Your task to perform on an android device: add a contact Image 0: 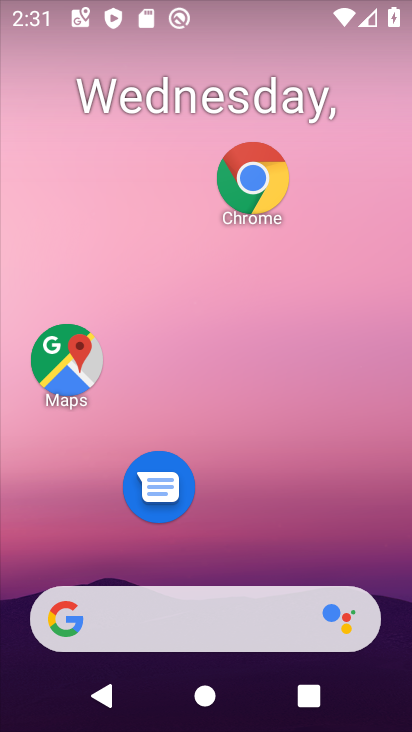
Step 0: drag from (263, 535) to (251, 46)
Your task to perform on an android device: add a contact Image 1: 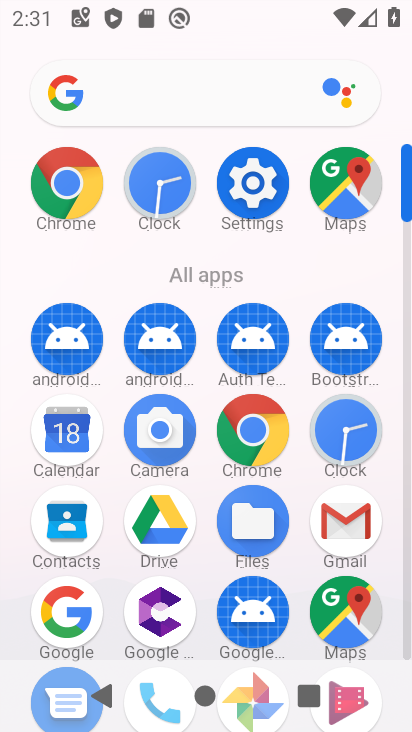
Step 1: click (59, 497)
Your task to perform on an android device: add a contact Image 2: 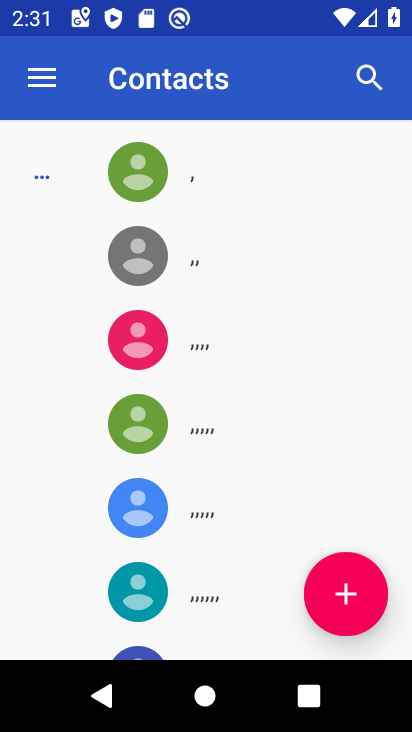
Step 2: click (335, 590)
Your task to perform on an android device: add a contact Image 3: 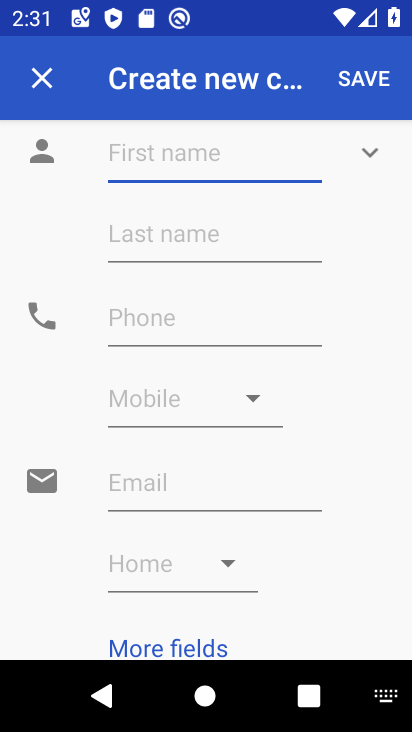
Step 3: type "qazxswedcvfrtgbnhyujmkiolp"
Your task to perform on an android device: add a contact Image 4: 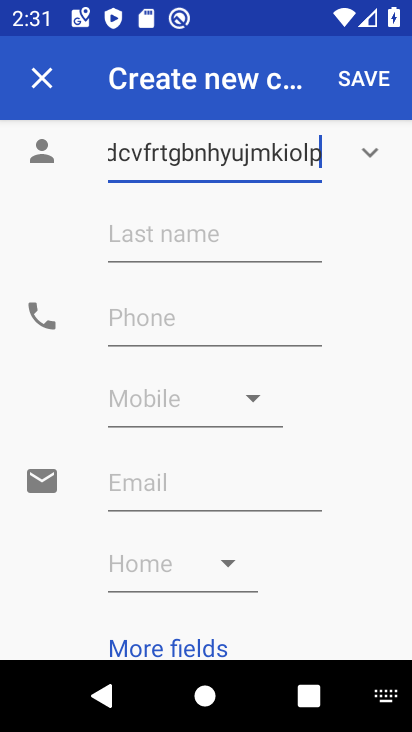
Step 4: click (173, 332)
Your task to perform on an android device: add a contact Image 5: 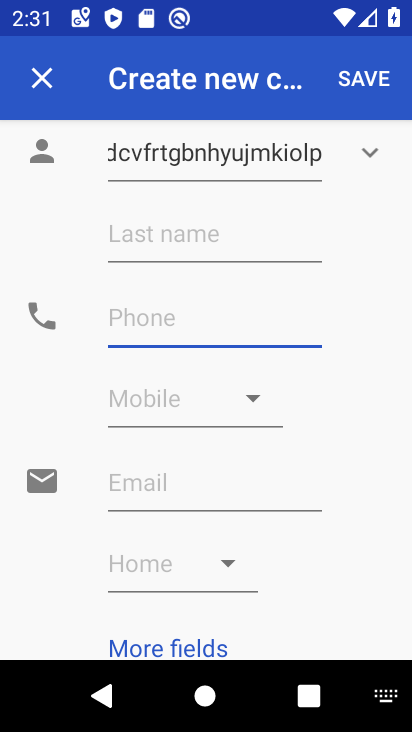
Step 5: type "0112345678"
Your task to perform on an android device: add a contact Image 6: 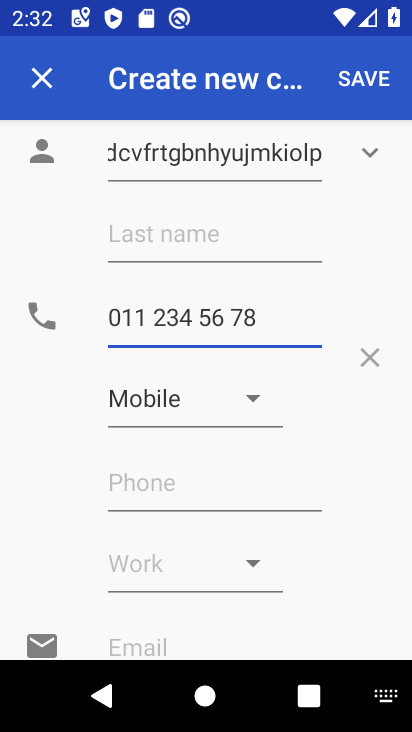
Step 6: click (384, 88)
Your task to perform on an android device: add a contact Image 7: 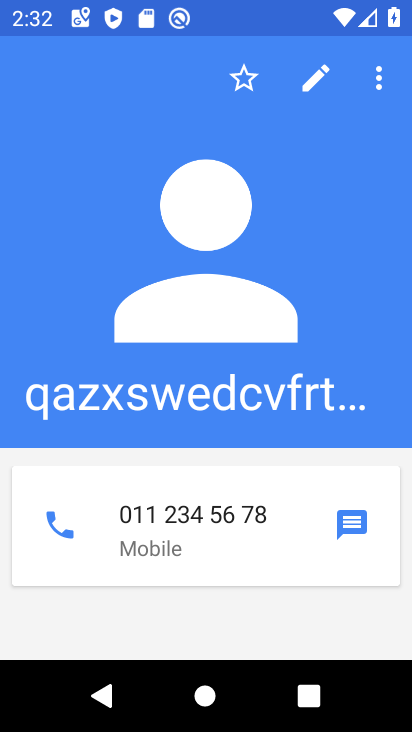
Step 7: task complete